Your task to perform on an android device: Turn on the flashlight Image 0: 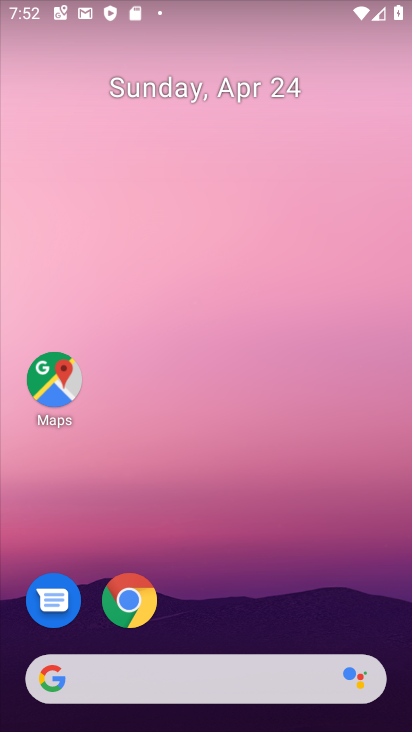
Step 0: drag from (216, 686) to (217, 110)
Your task to perform on an android device: Turn on the flashlight Image 1: 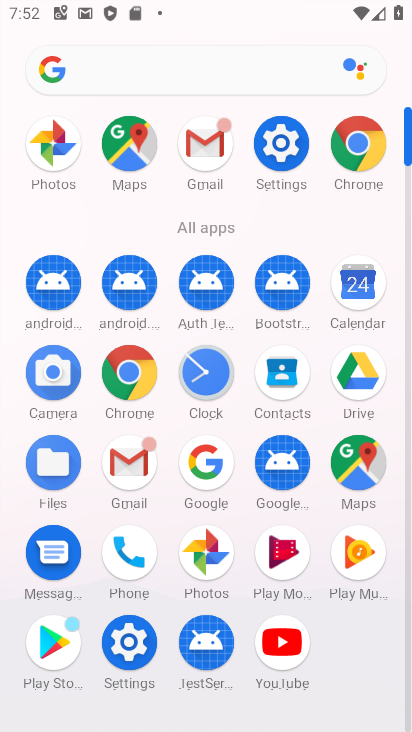
Step 1: click (280, 138)
Your task to perform on an android device: Turn on the flashlight Image 2: 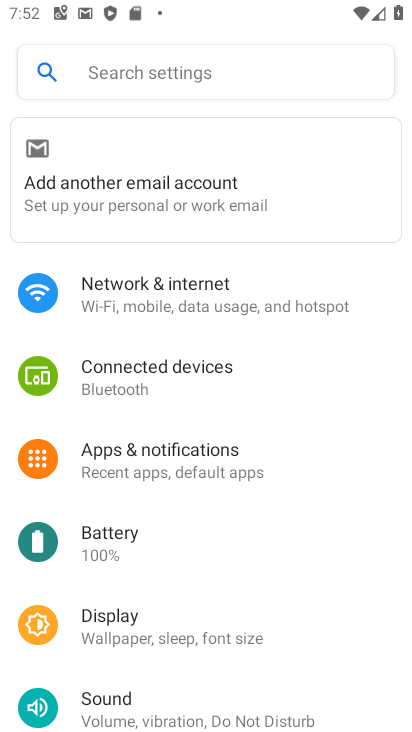
Step 2: task complete